Your task to perform on an android device: Go to display settings Image 0: 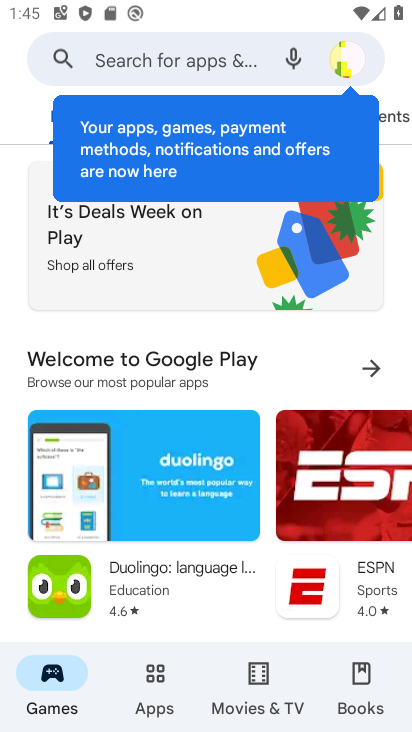
Step 0: press home button
Your task to perform on an android device: Go to display settings Image 1: 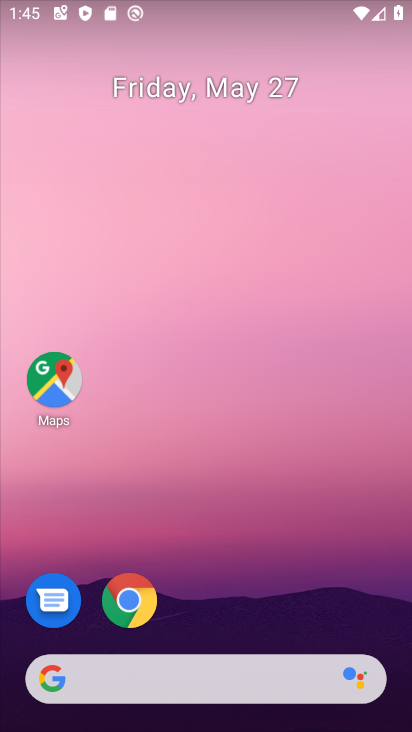
Step 1: drag from (233, 727) to (218, 149)
Your task to perform on an android device: Go to display settings Image 2: 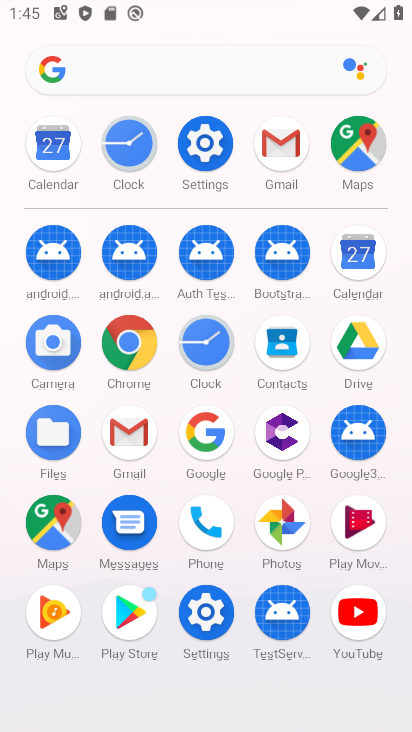
Step 2: click (209, 150)
Your task to perform on an android device: Go to display settings Image 3: 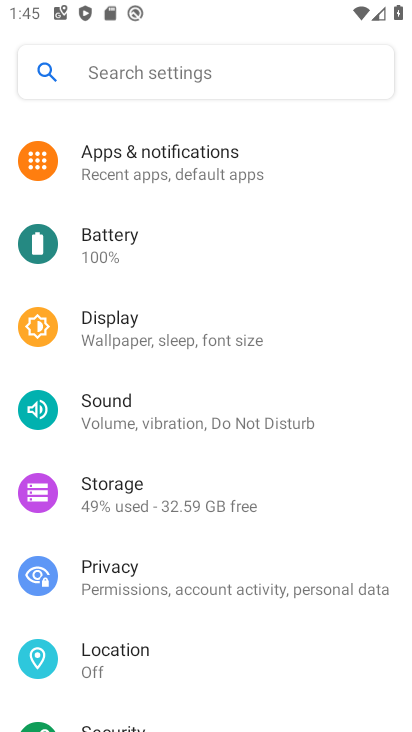
Step 3: click (110, 322)
Your task to perform on an android device: Go to display settings Image 4: 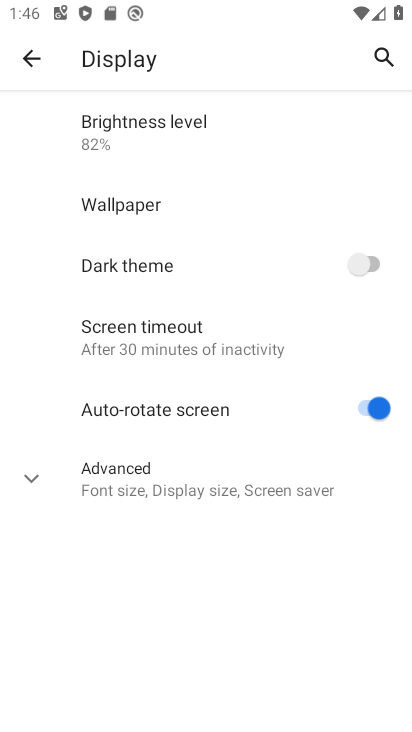
Step 4: task complete